Your task to perform on an android device: set an alarm Image 0: 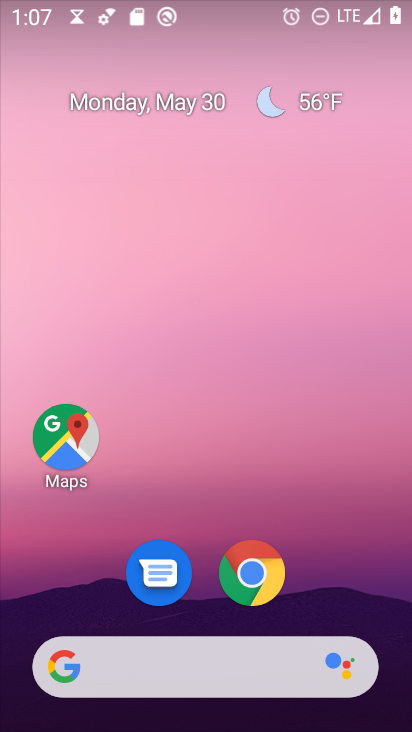
Step 0: drag from (342, 636) to (332, 81)
Your task to perform on an android device: set an alarm Image 1: 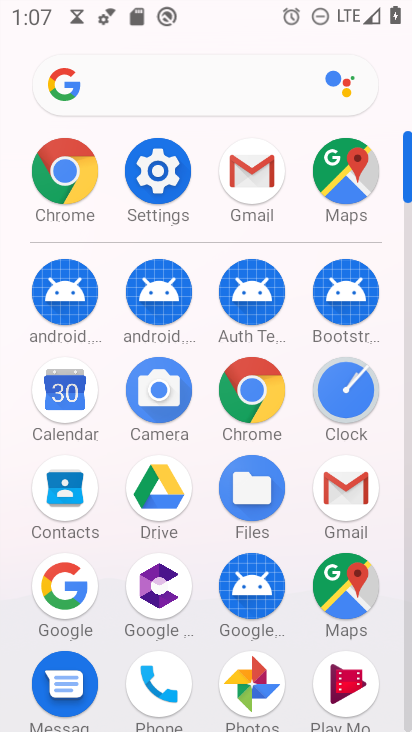
Step 1: click (357, 381)
Your task to perform on an android device: set an alarm Image 2: 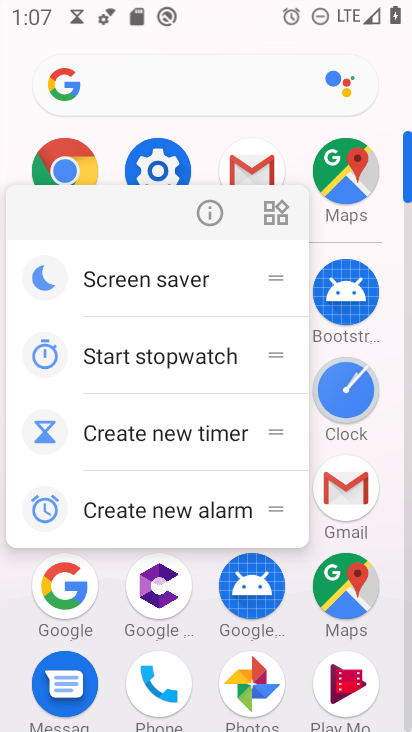
Step 2: click (356, 393)
Your task to perform on an android device: set an alarm Image 3: 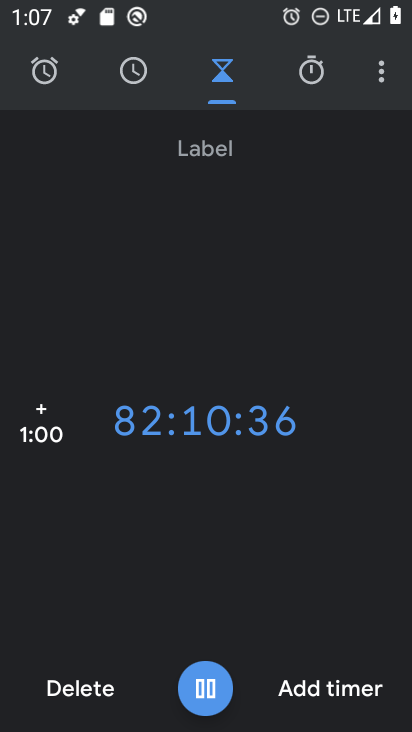
Step 3: click (44, 78)
Your task to perform on an android device: set an alarm Image 4: 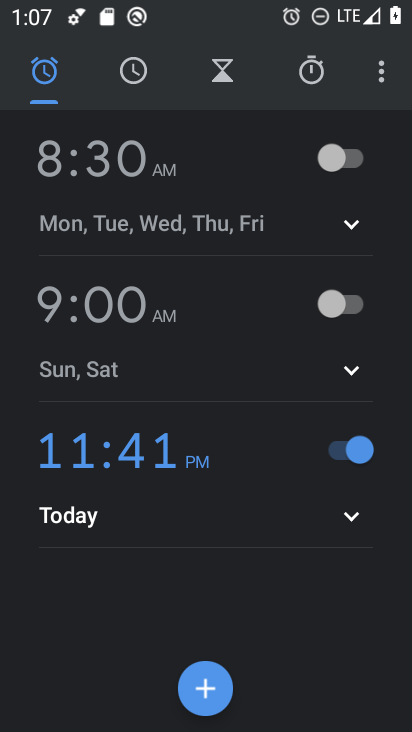
Step 4: click (361, 310)
Your task to perform on an android device: set an alarm Image 5: 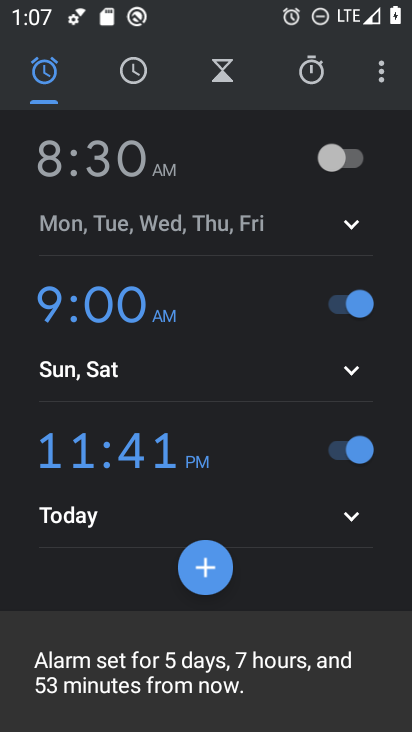
Step 5: task complete